Your task to perform on an android device: Open wifi settings Image 0: 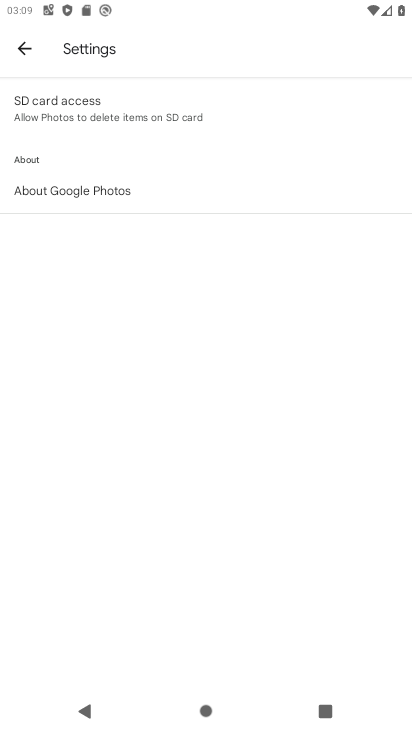
Step 0: press home button
Your task to perform on an android device: Open wifi settings Image 1: 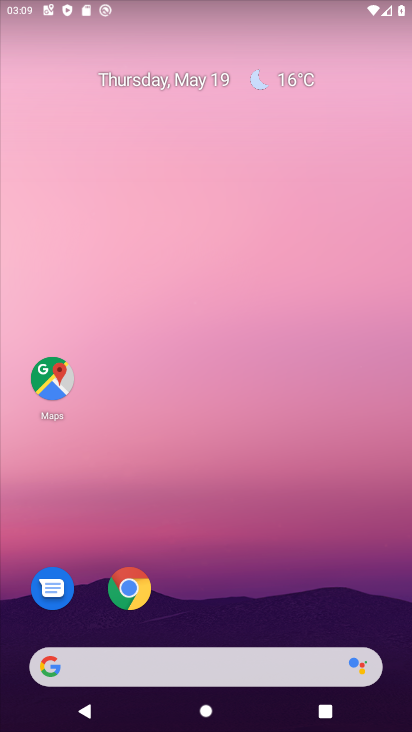
Step 1: drag from (230, 593) to (203, 128)
Your task to perform on an android device: Open wifi settings Image 2: 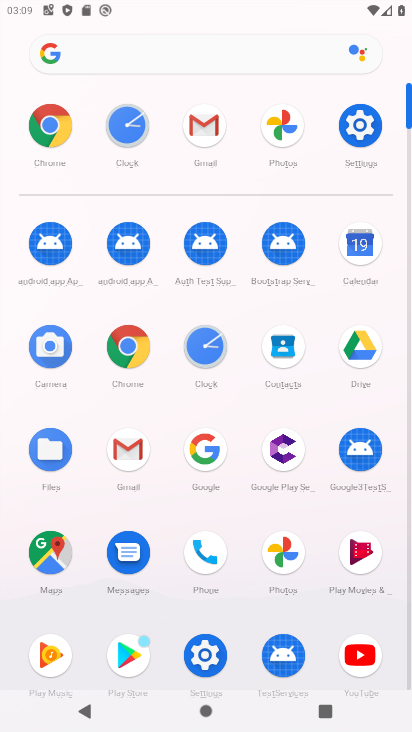
Step 2: click (356, 119)
Your task to perform on an android device: Open wifi settings Image 3: 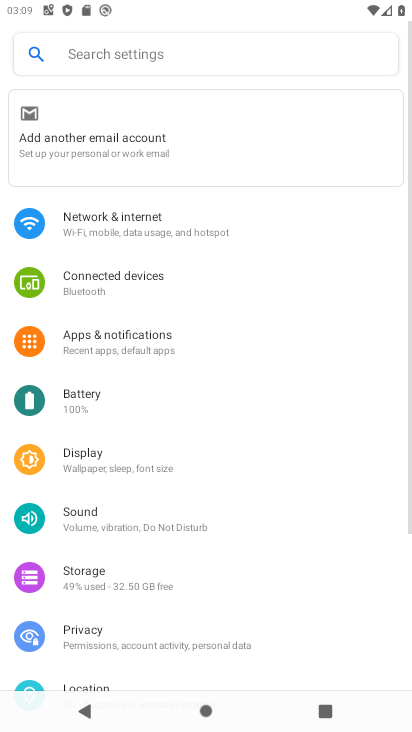
Step 3: click (120, 229)
Your task to perform on an android device: Open wifi settings Image 4: 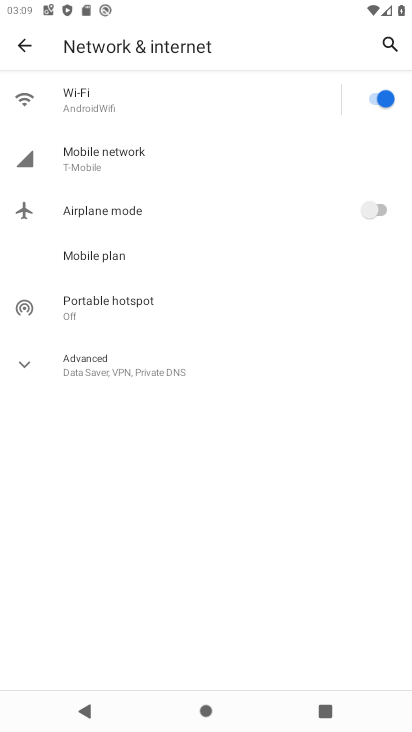
Step 4: click (137, 99)
Your task to perform on an android device: Open wifi settings Image 5: 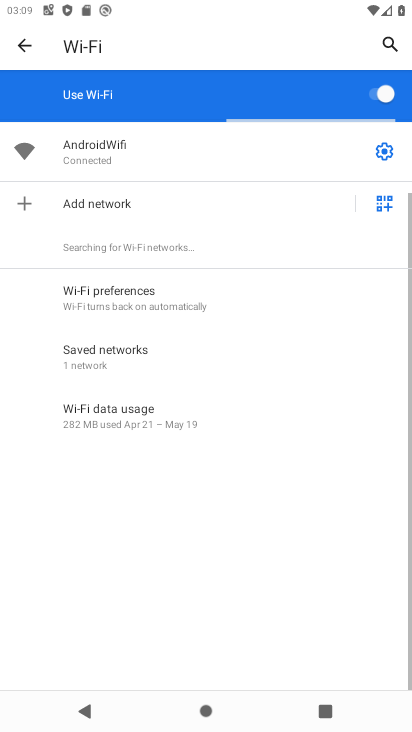
Step 5: click (374, 152)
Your task to perform on an android device: Open wifi settings Image 6: 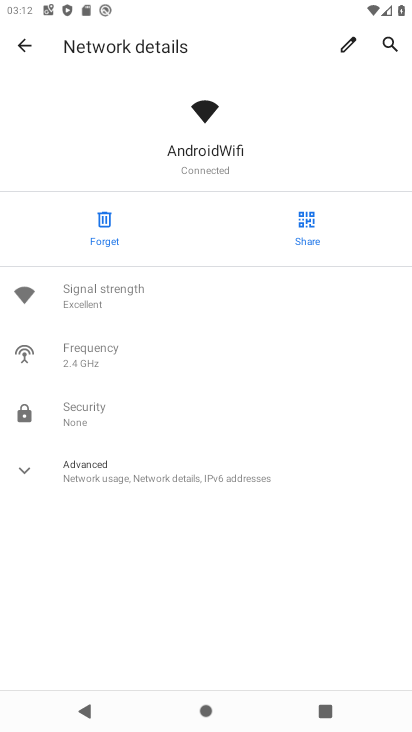
Step 6: task complete